Your task to perform on an android device: turn notification dots on Image 0: 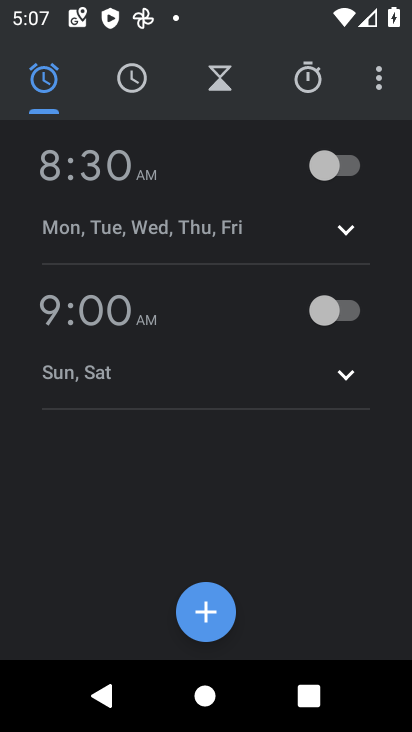
Step 0: press home button
Your task to perform on an android device: turn notification dots on Image 1: 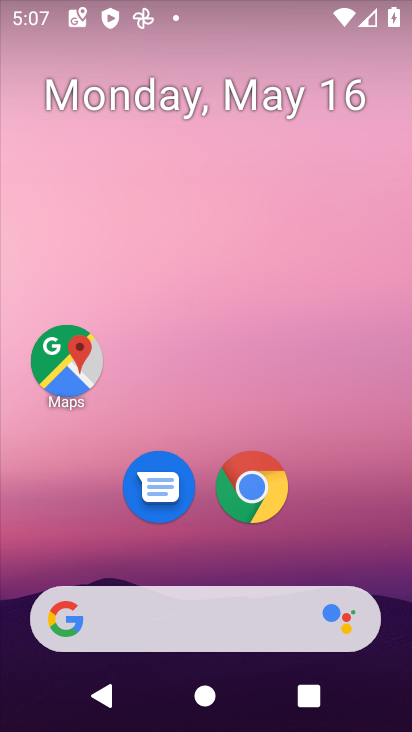
Step 1: drag from (402, 625) to (340, 22)
Your task to perform on an android device: turn notification dots on Image 2: 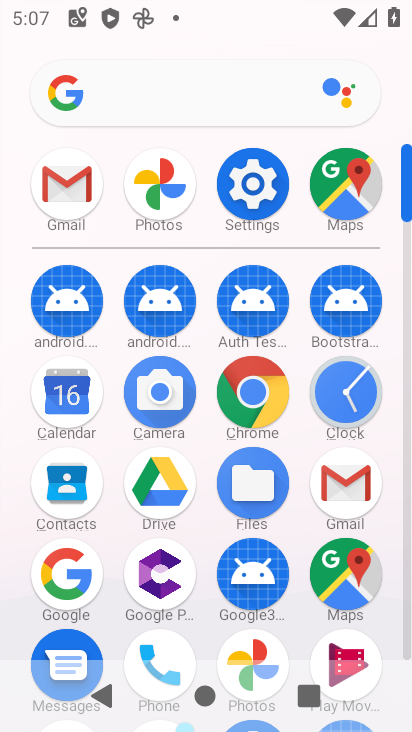
Step 2: click (410, 647)
Your task to perform on an android device: turn notification dots on Image 3: 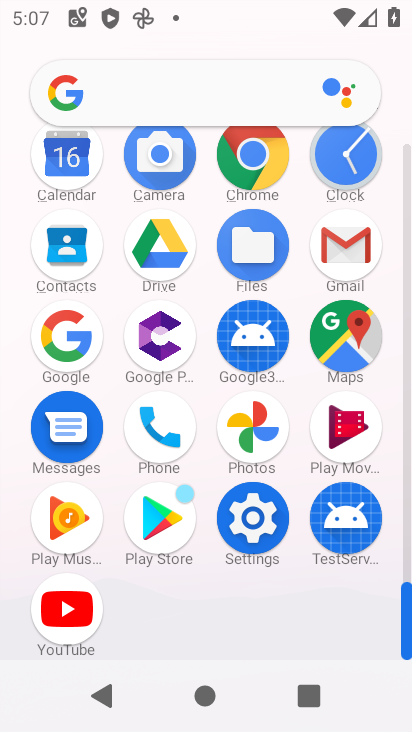
Step 3: click (256, 520)
Your task to perform on an android device: turn notification dots on Image 4: 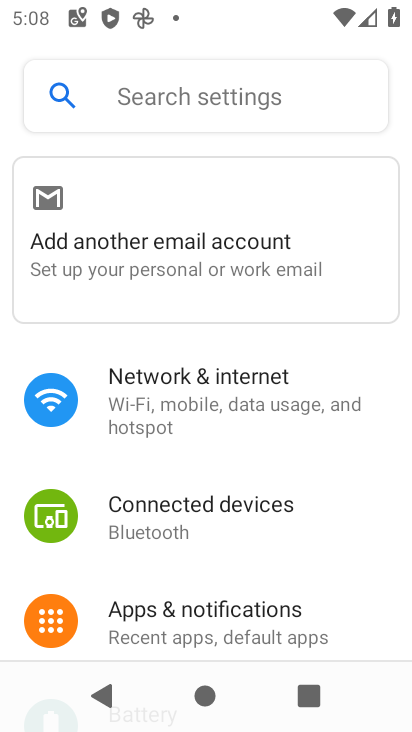
Step 4: drag from (328, 582) to (358, 118)
Your task to perform on an android device: turn notification dots on Image 5: 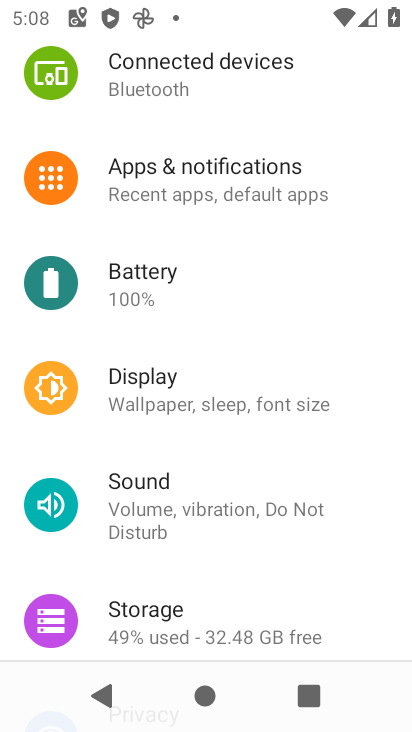
Step 5: click (179, 188)
Your task to perform on an android device: turn notification dots on Image 6: 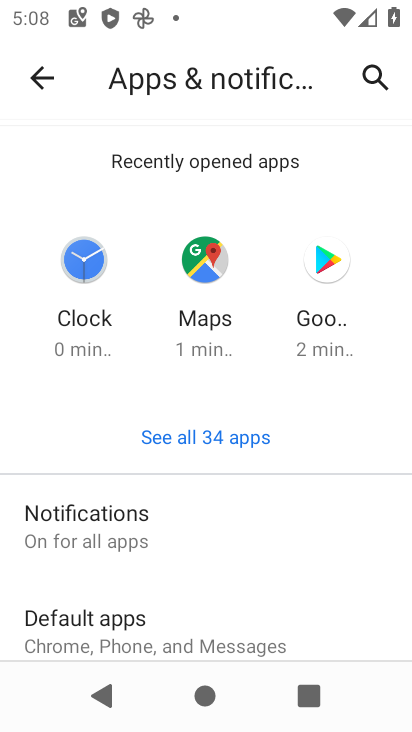
Step 6: drag from (261, 577) to (324, 236)
Your task to perform on an android device: turn notification dots on Image 7: 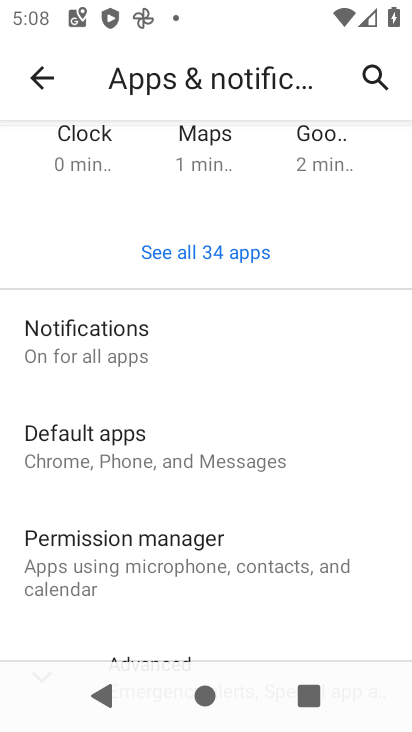
Step 7: click (80, 335)
Your task to perform on an android device: turn notification dots on Image 8: 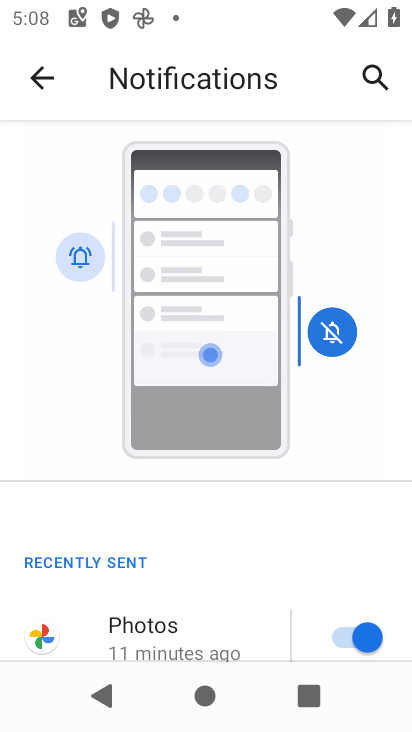
Step 8: drag from (302, 625) to (226, 129)
Your task to perform on an android device: turn notification dots on Image 9: 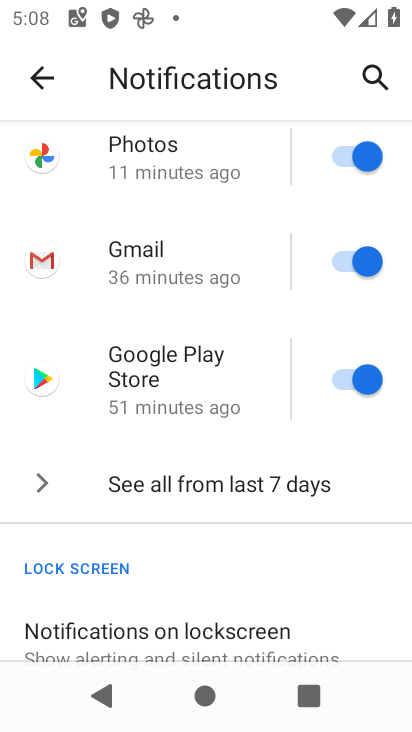
Step 9: drag from (279, 569) to (283, 167)
Your task to perform on an android device: turn notification dots on Image 10: 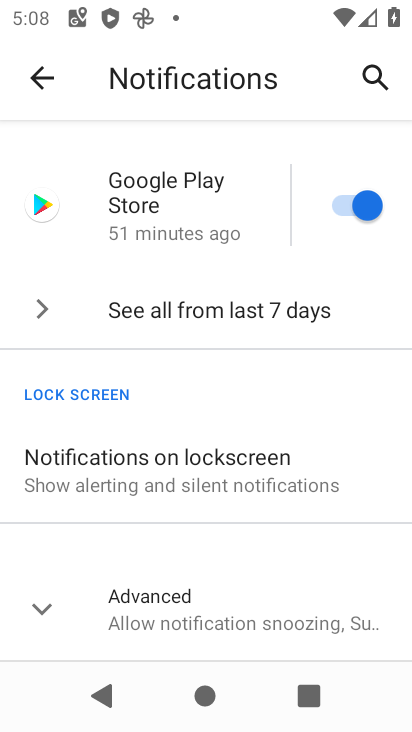
Step 10: click (39, 606)
Your task to perform on an android device: turn notification dots on Image 11: 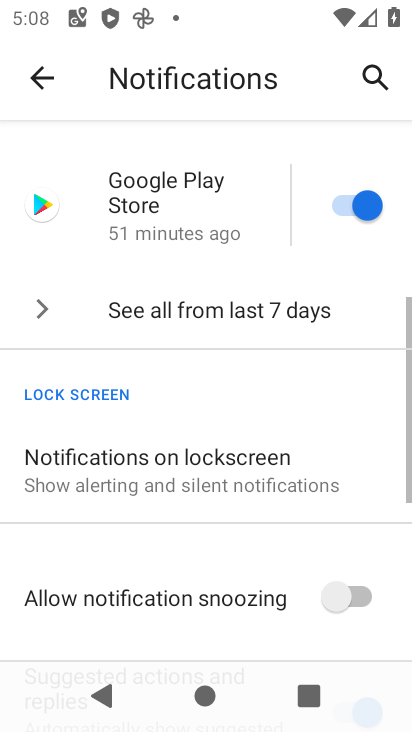
Step 11: task complete